Your task to perform on an android device: Look up the best rated pressure washer on Home Depot. Image 0: 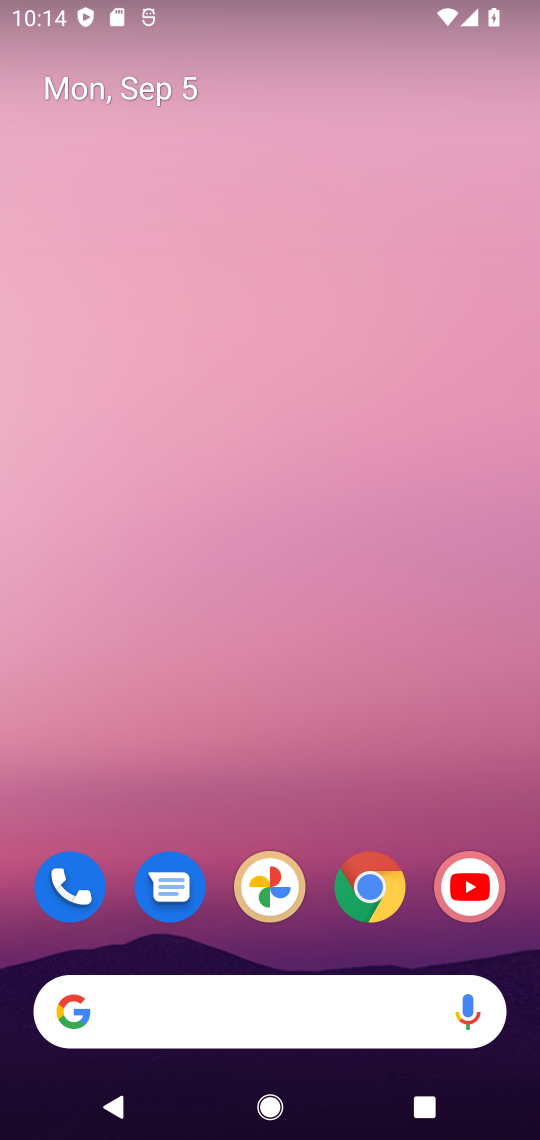
Step 0: click (380, 889)
Your task to perform on an android device: Look up the best rated pressure washer on Home Depot. Image 1: 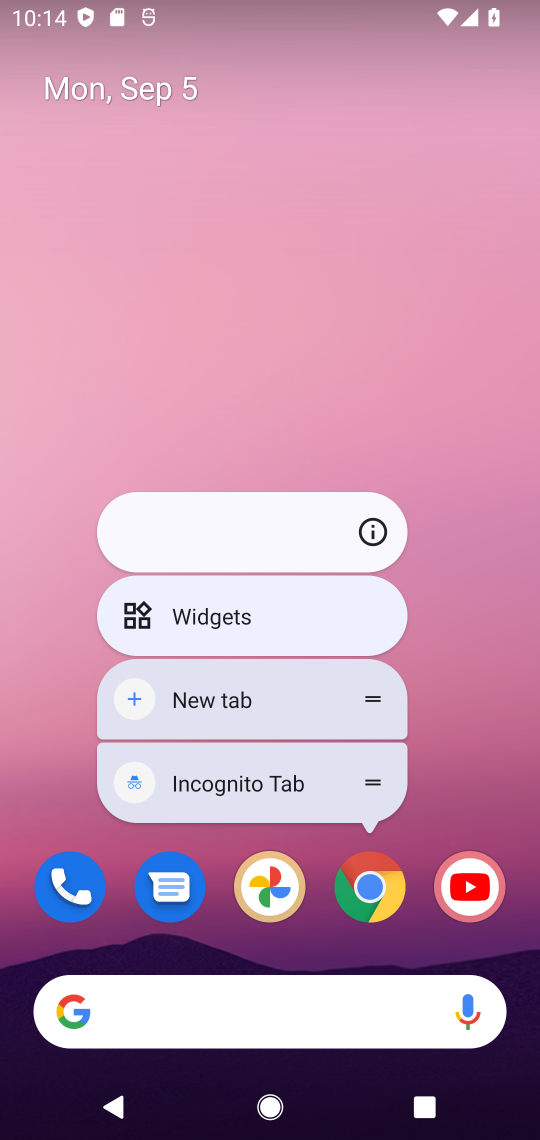
Step 1: click (354, 888)
Your task to perform on an android device: Look up the best rated pressure washer on Home Depot. Image 2: 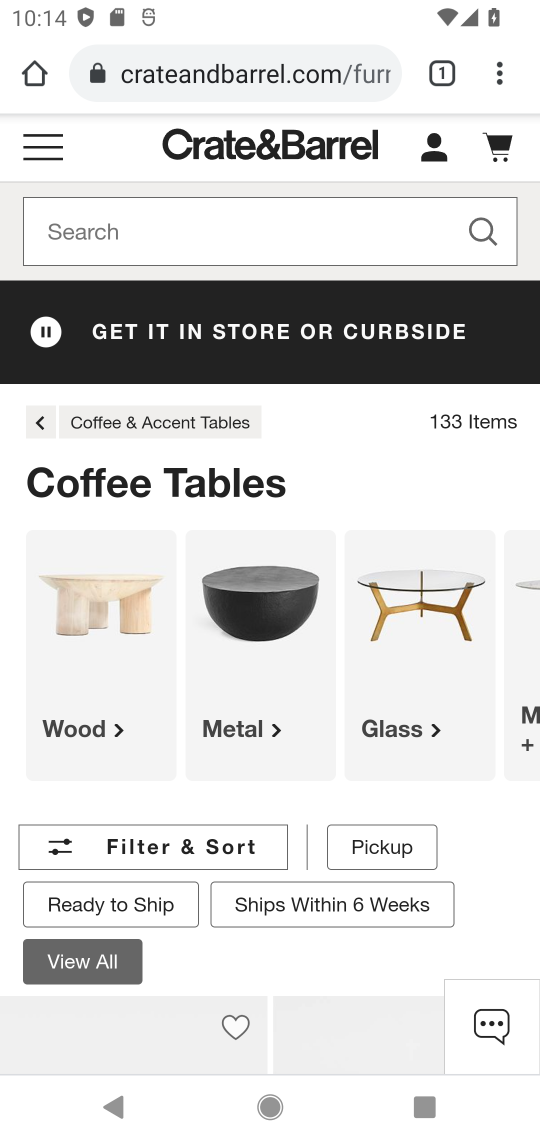
Step 2: click (199, 59)
Your task to perform on an android device: Look up the best rated pressure washer on Home Depot. Image 3: 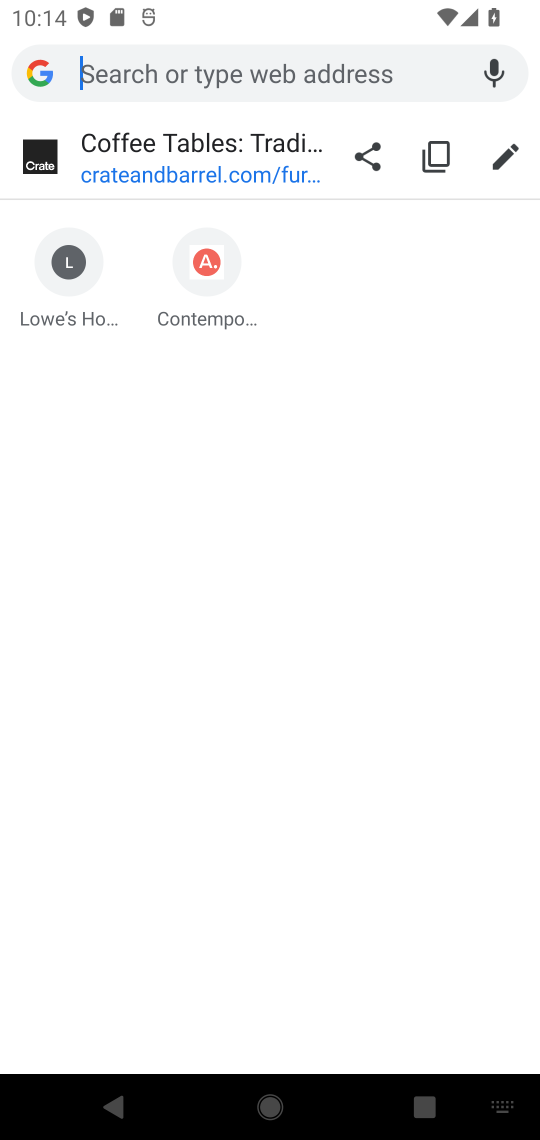
Step 3: type "home depot"
Your task to perform on an android device: Look up the best rated pressure washer on Home Depot. Image 4: 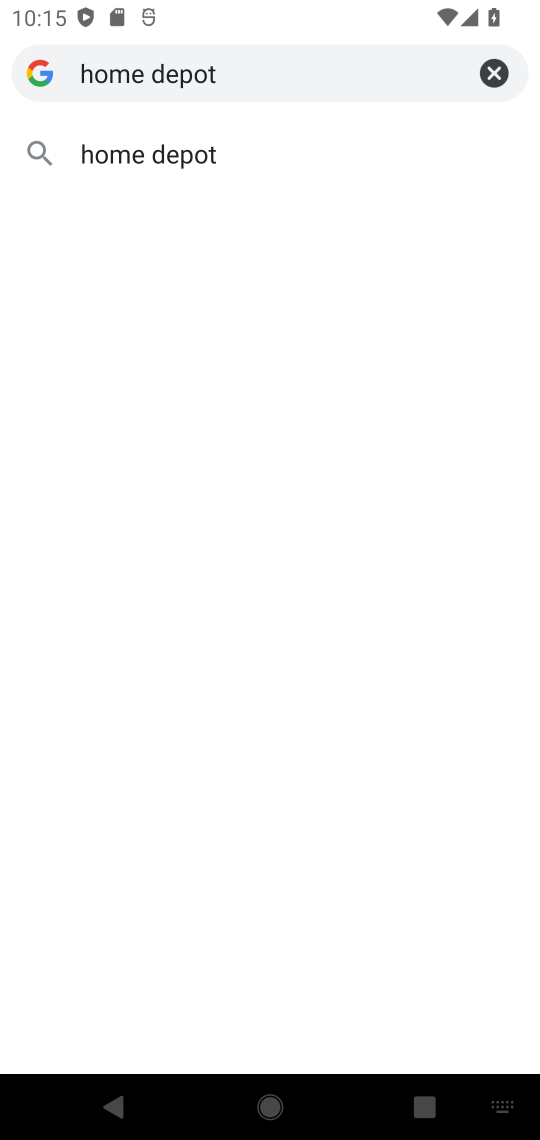
Step 4: click (173, 153)
Your task to perform on an android device: Look up the best rated pressure washer on Home Depot. Image 5: 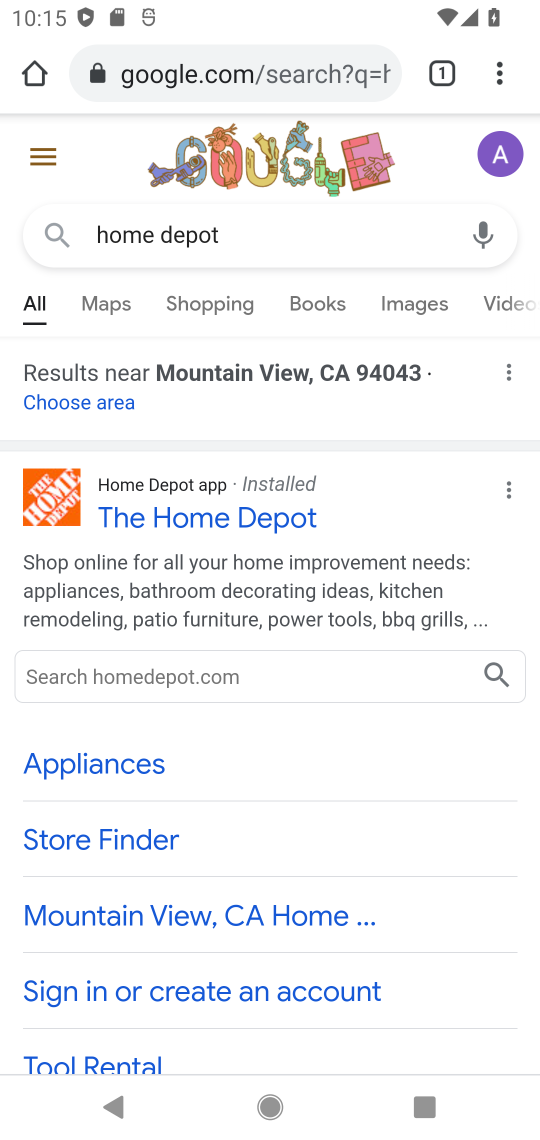
Step 5: click (197, 505)
Your task to perform on an android device: Look up the best rated pressure washer on Home Depot. Image 6: 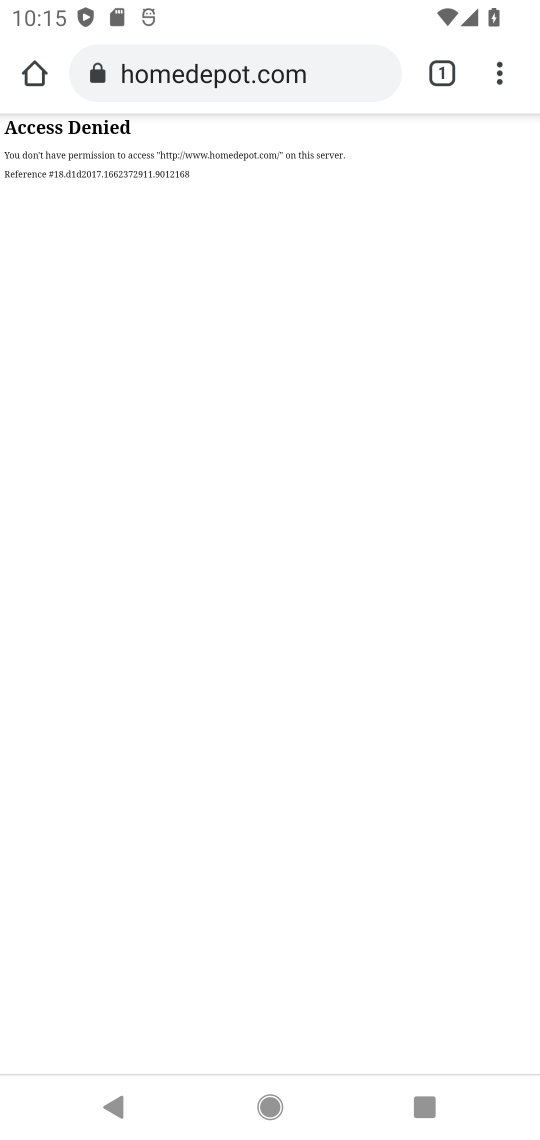
Step 6: task complete